Your task to perform on an android device: Do I have any events today? Image 0: 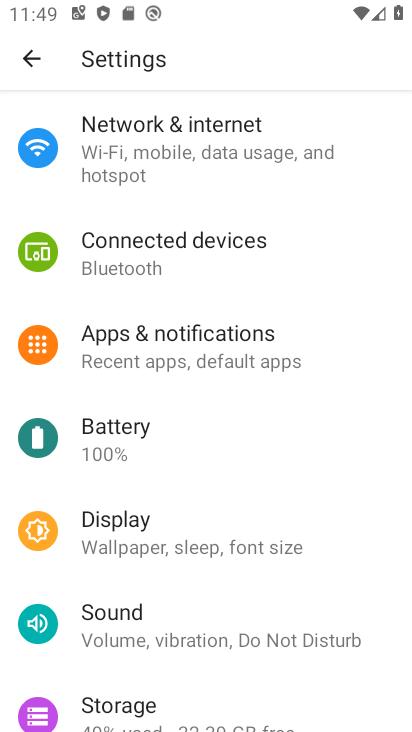
Step 0: press home button
Your task to perform on an android device: Do I have any events today? Image 1: 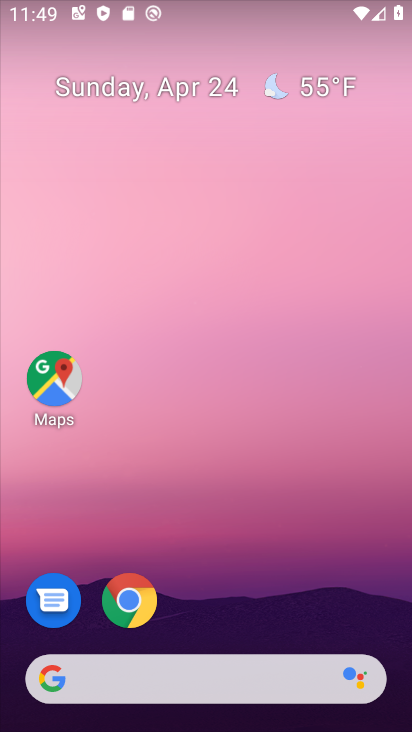
Step 1: click (178, 92)
Your task to perform on an android device: Do I have any events today? Image 2: 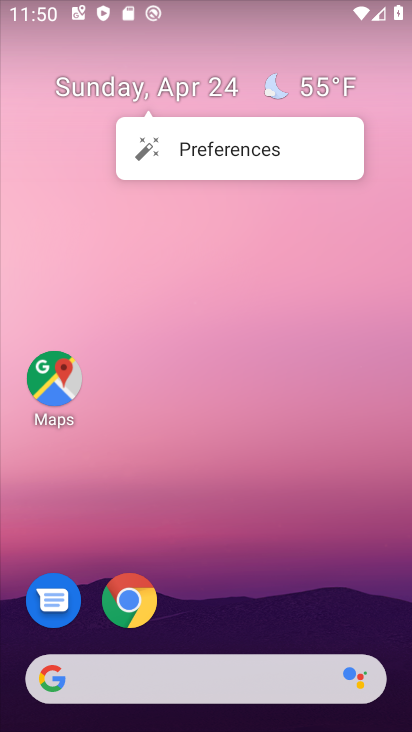
Step 2: click (178, 92)
Your task to perform on an android device: Do I have any events today? Image 3: 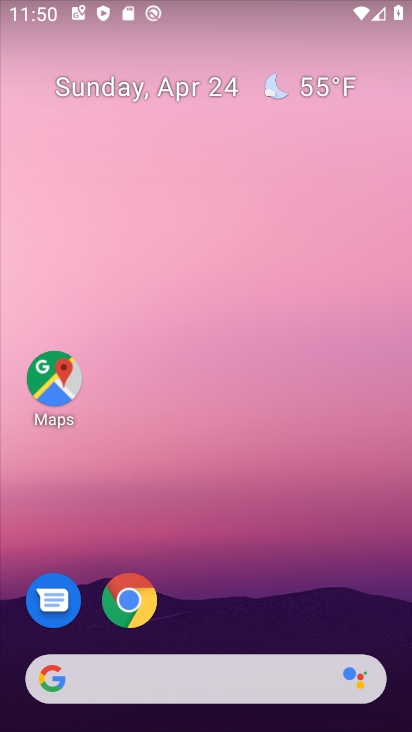
Step 3: click (178, 92)
Your task to perform on an android device: Do I have any events today? Image 4: 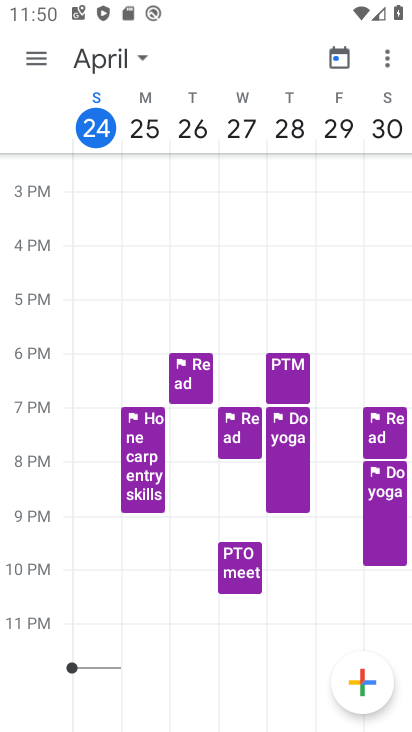
Step 4: click (91, 62)
Your task to perform on an android device: Do I have any events today? Image 5: 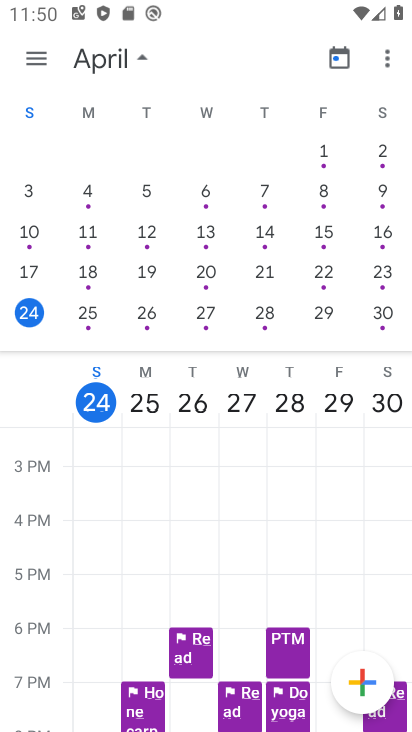
Step 5: task complete